Your task to perform on an android device: Check the settings for the Netflix app Image 0: 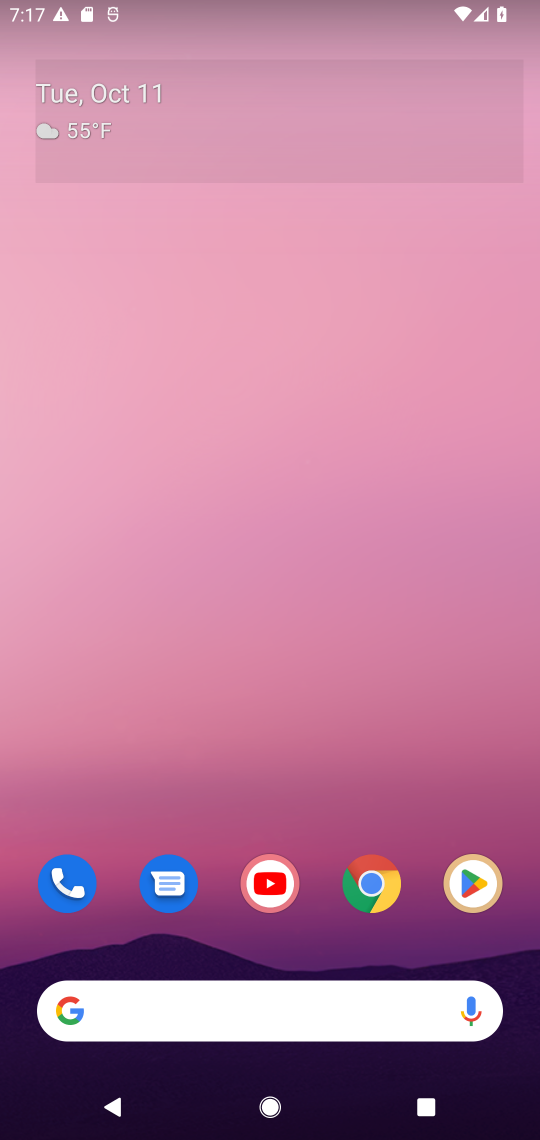
Step 0: drag from (253, 381) to (333, 4)
Your task to perform on an android device: Check the settings for the Netflix app Image 1: 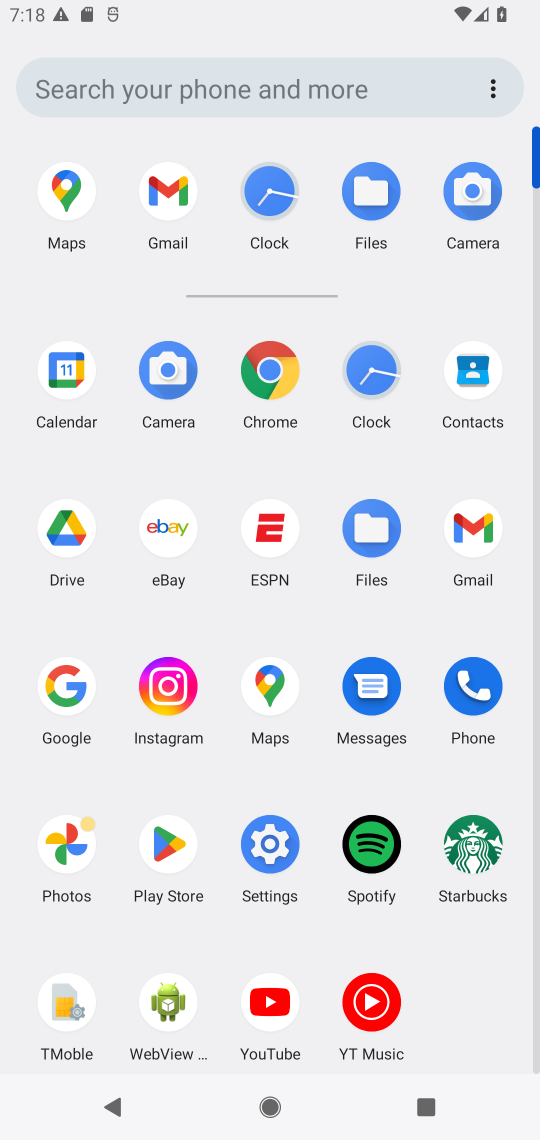
Step 1: task complete